Your task to perform on an android device: change alarm snooze length Image 0: 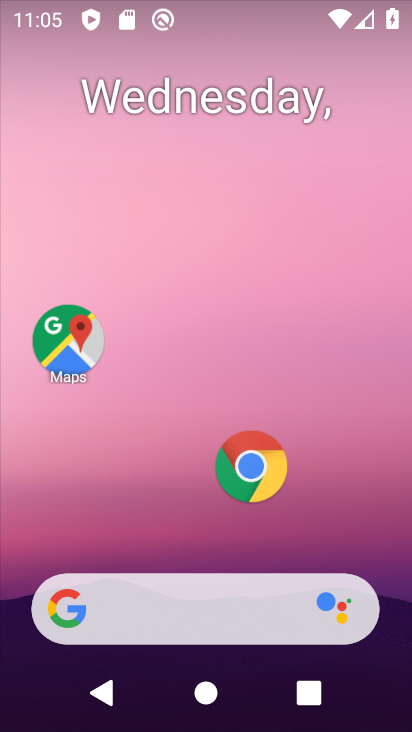
Step 0: drag from (204, 444) to (170, 60)
Your task to perform on an android device: change alarm snooze length Image 1: 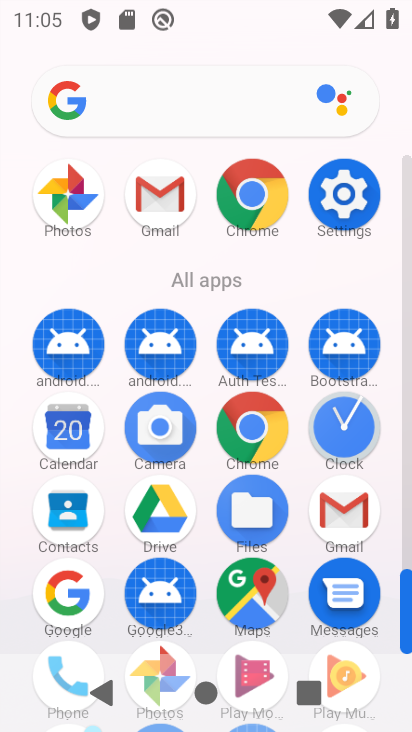
Step 1: click (339, 439)
Your task to perform on an android device: change alarm snooze length Image 2: 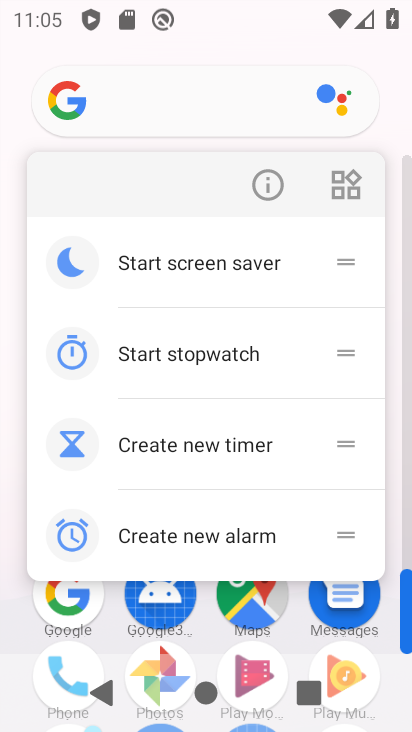
Step 2: click (339, 439)
Your task to perform on an android device: change alarm snooze length Image 3: 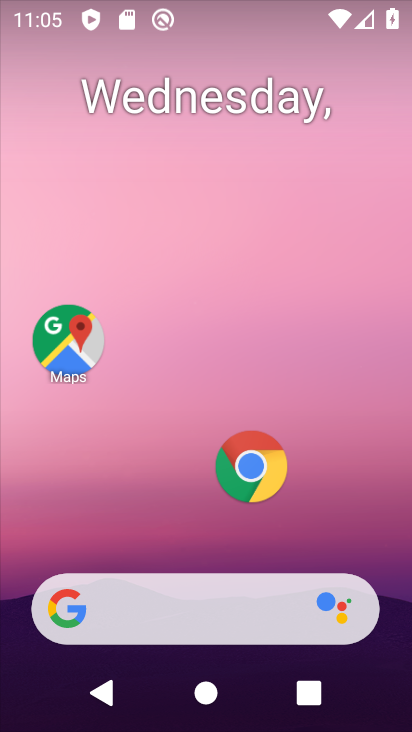
Step 3: drag from (371, 661) to (145, 67)
Your task to perform on an android device: change alarm snooze length Image 4: 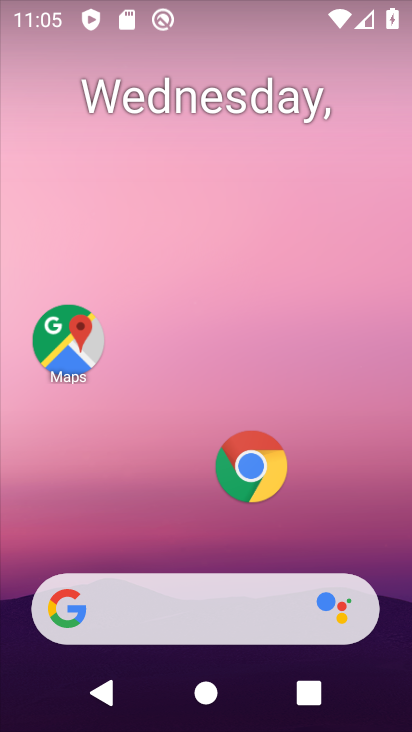
Step 4: drag from (264, 374) to (94, 23)
Your task to perform on an android device: change alarm snooze length Image 5: 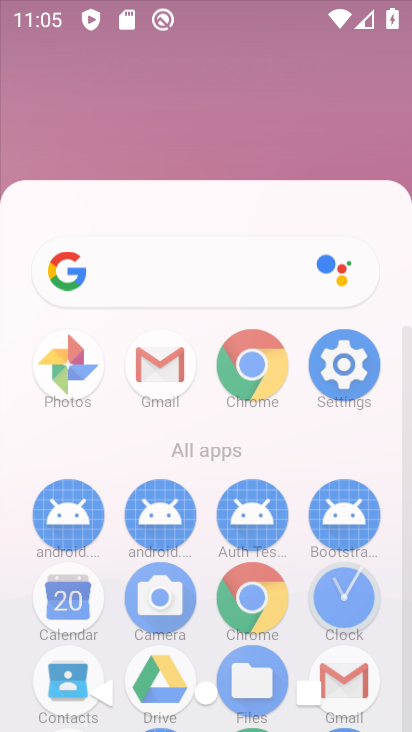
Step 5: drag from (250, 507) to (31, 43)
Your task to perform on an android device: change alarm snooze length Image 6: 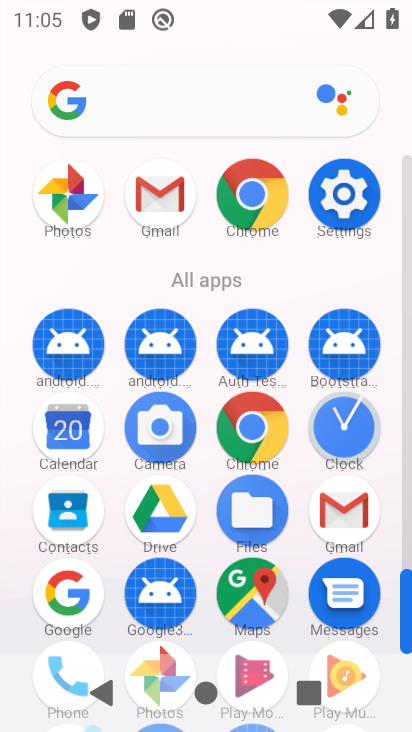
Step 6: click (334, 422)
Your task to perform on an android device: change alarm snooze length Image 7: 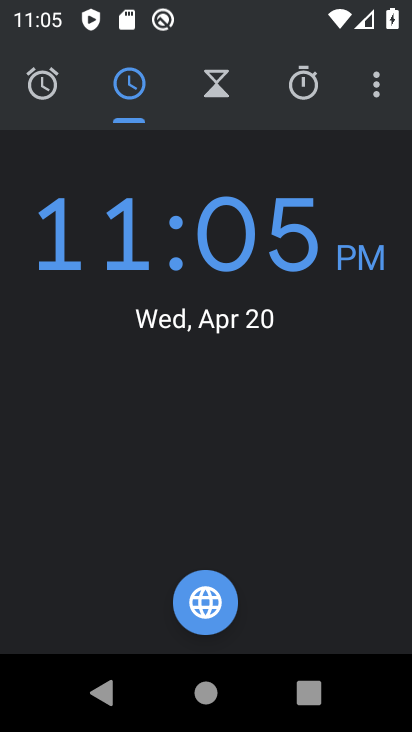
Step 7: click (368, 101)
Your task to perform on an android device: change alarm snooze length Image 8: 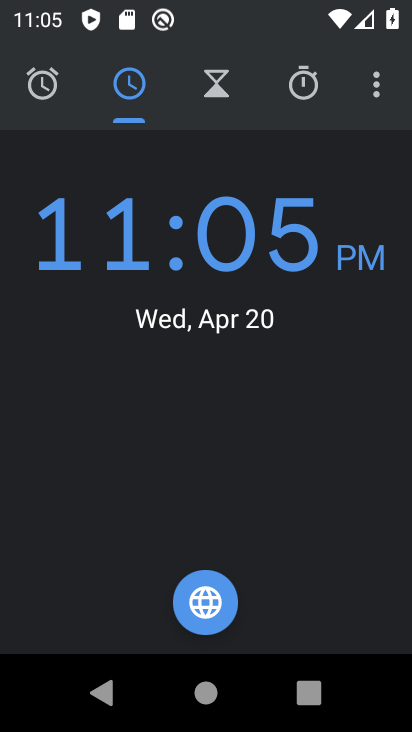
Step 8: click (376, 83)
Your task to perform on an android device: change alarm snooze length Image 9: 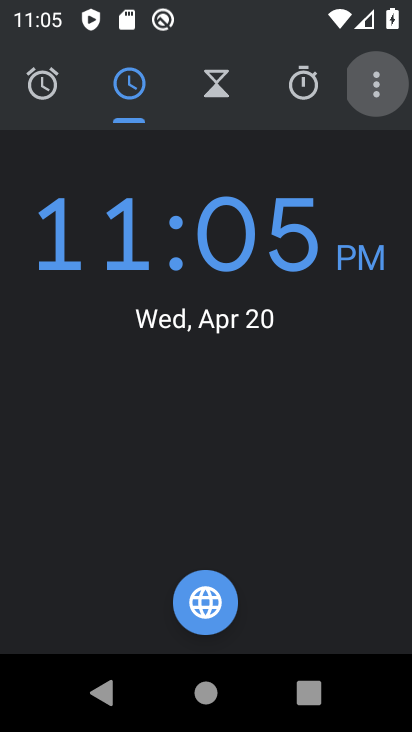
Step 9: click (376, 83)
Your task to perform on an android device: change alarm snooze length Image 10: 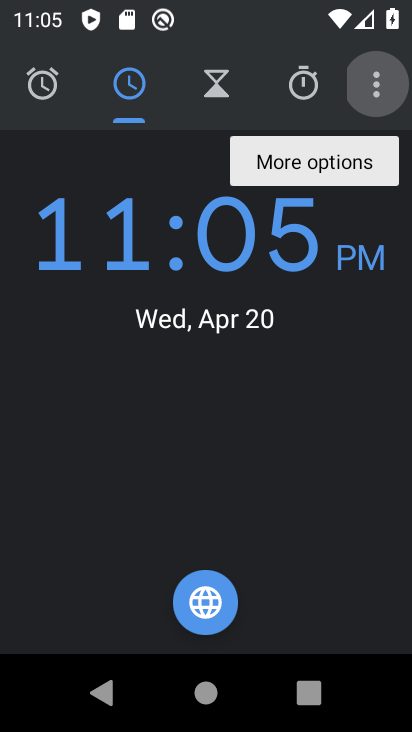
Step 10: click (375, 81)
Your task to perform on an android device: change alarm snooze length Image 11: 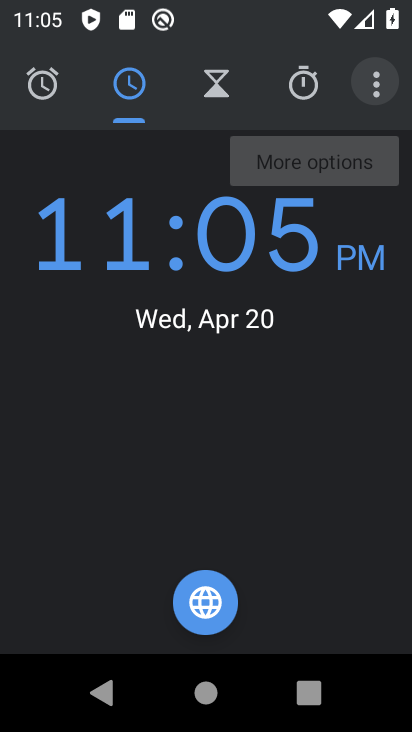
Step 11: click (375, 81)
Your task to perform on an android device: change alarm snooze length Image 12: 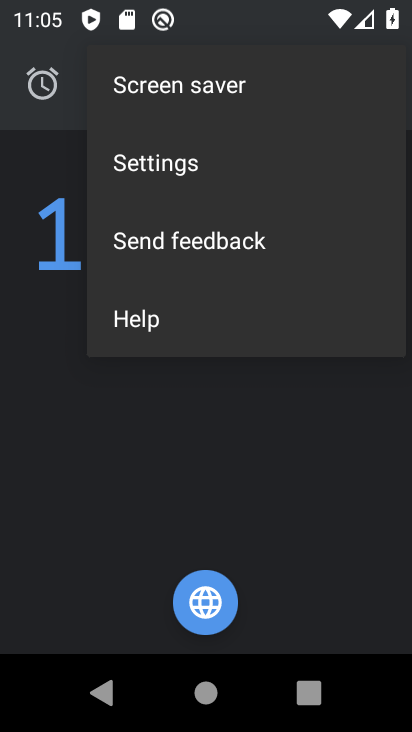
Step 12: click (365, 88)
Your task to perform on an android device: change alarm snooze length Image 13: 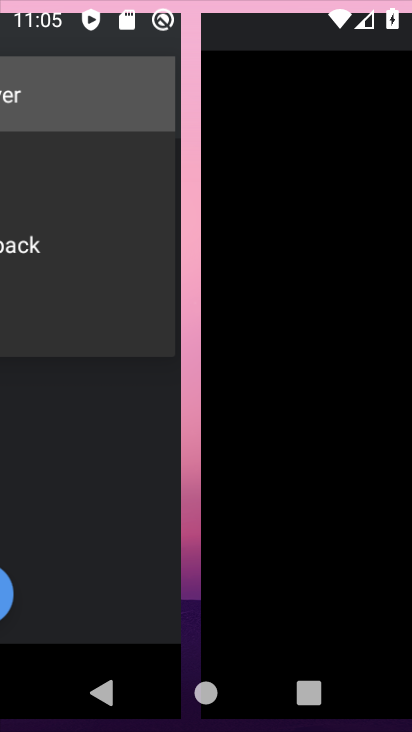
Step 13: click (171, 166)
Your task to perform on an android device: change alarm snooze length Image 14: 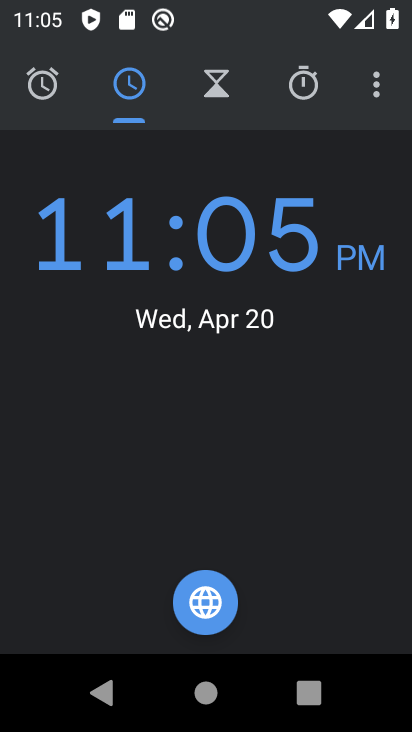
Step 14: click (378, 82)
Your task to perform on an android device: change alarm snooze length Image 15: 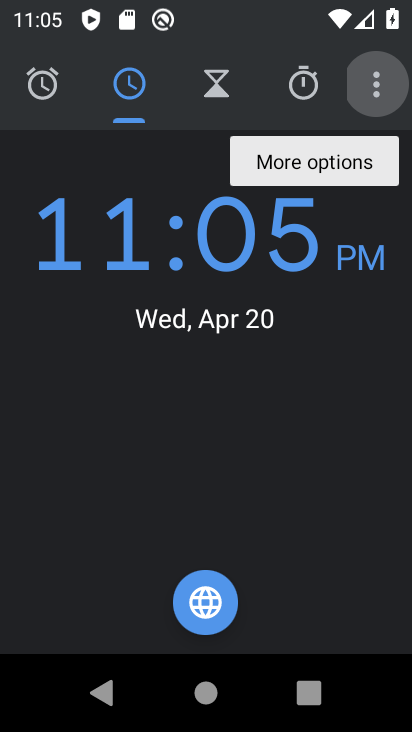
Step 15: click (371, 89)
Your task to perform on an android device: change alarm snooze length Image 16: 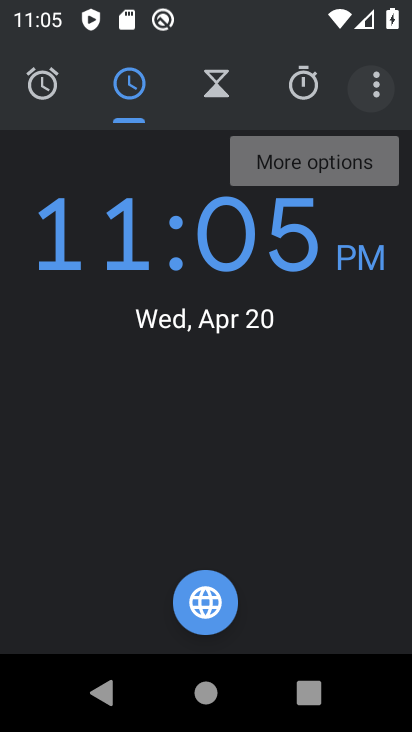
Step 16: click (371, 90)
Your task to perform on an android device: change alarm snooze length Image 17: 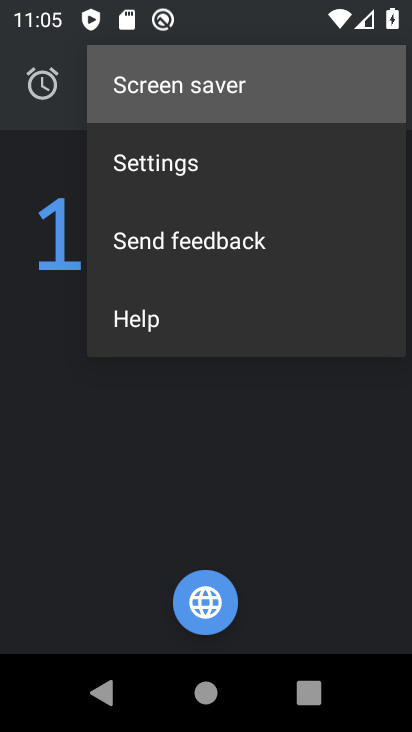
Step 17: click (168, 160)
Your task to perform on an android device: change alarm snooze length Image 18: 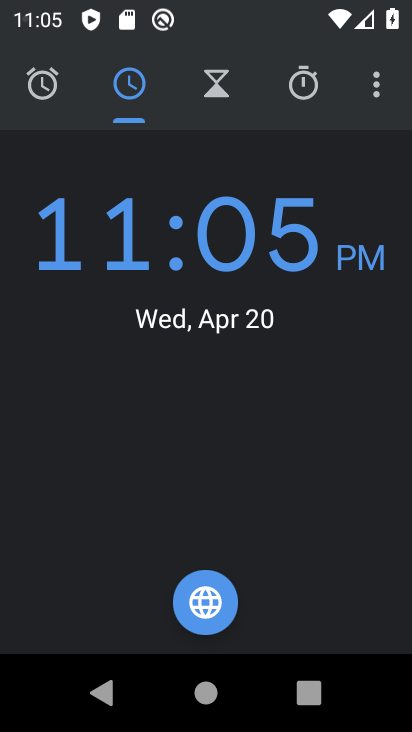
Step 18: click (376, 86)
Your task to perform on an android device: change alarm snooze length Image 19: 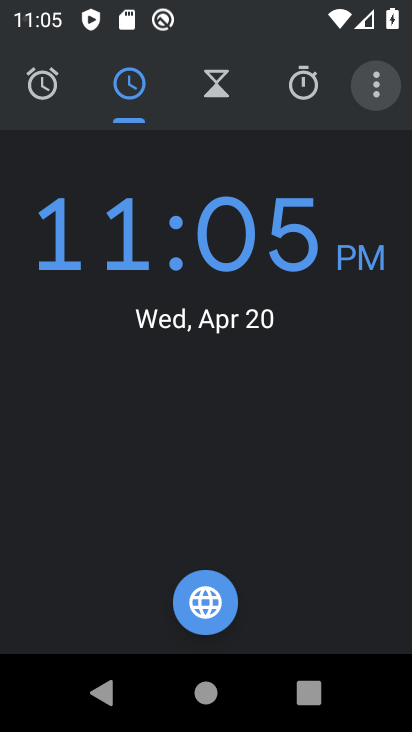
Step 19: drag from (376, 86) to (170, 164)
Your task to perform on an android device: change alarm snooze length Image 20: 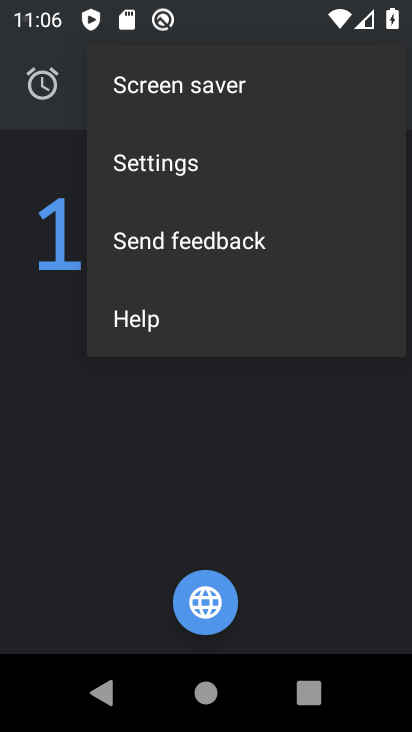
Step 20: click (172, 164)
Your task to perform on an android device: change alarm snooze length Image 21: 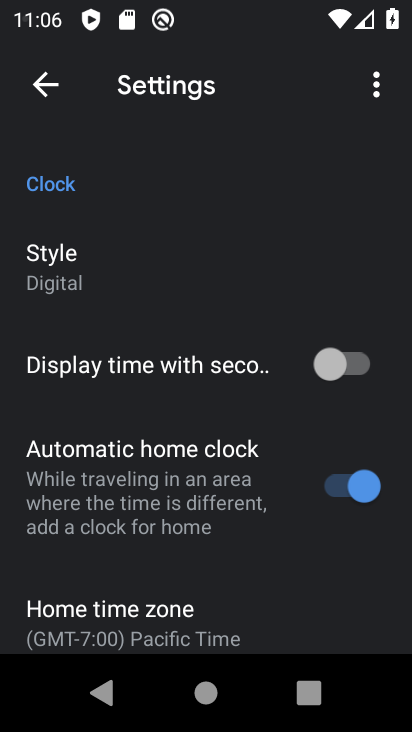
Step 21: drag from (129, 457) to (93, 186)
Your task to perform on an android device: change alarm snooze length Image 22: 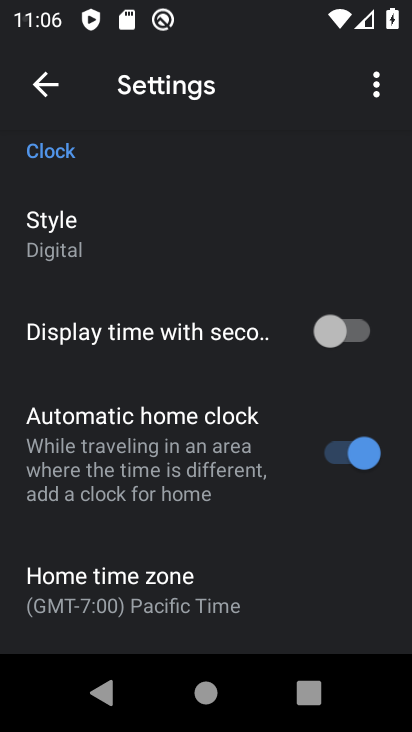
Step 22: drag from (117, 457) to (101, 268)
Your task to perform on an android device: change alarm snooze length Image 23: 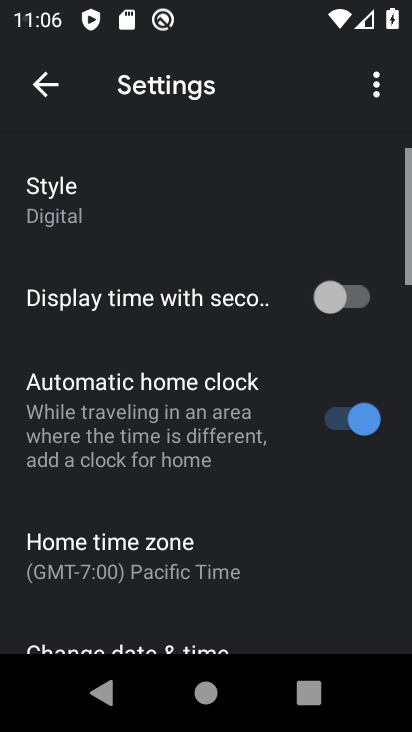
Step 23: click (203, 230)
Your task to perform on an android device: change alarm snooze length Image 24: 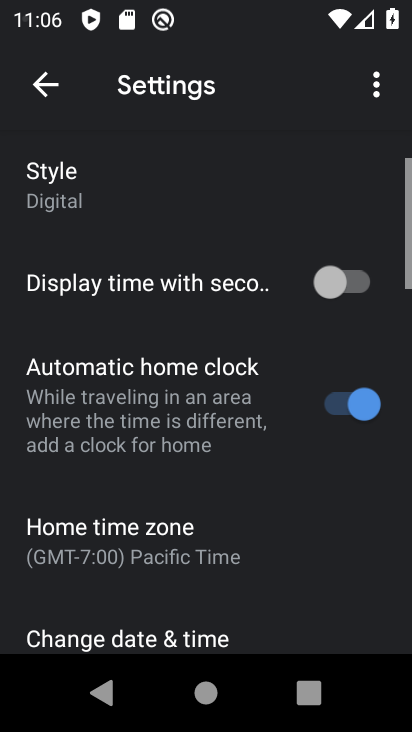
Step 24: drag from (153, 524) to (120, 179)
Your task to perform on an android device: change alarm snooze length Image 25: 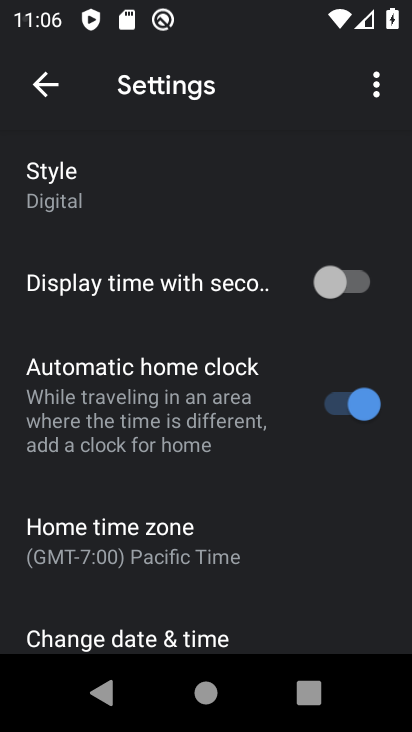
Step 25: drag from (195, 523) to (175, 92)
Your task to perform on an android device: change alarm snooze length Image 26: 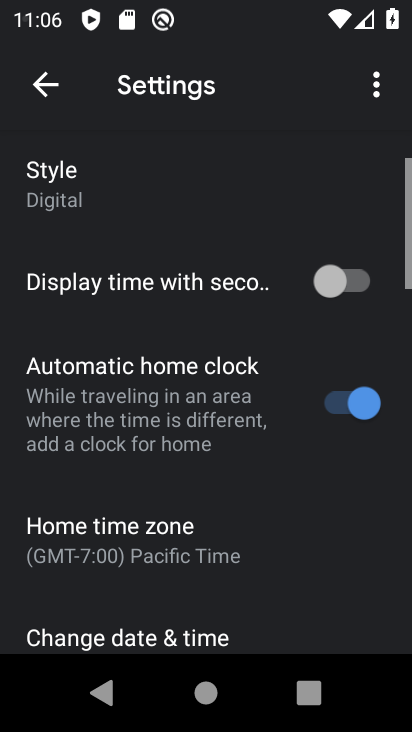
Step 26: drag from (210, 541) to (195, 199)
Your task to perform on an android device: change alarm snooze length Image 27: 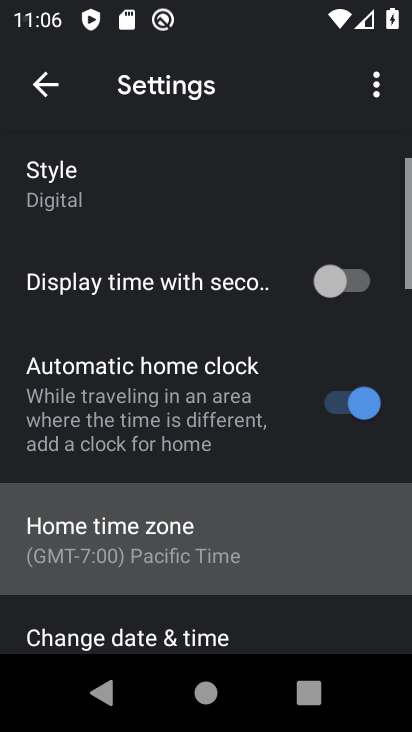
Step 27: drag from (209, 472) to (169, 201)
Your task to perform on an android device: change alarm snooze length Image 28: 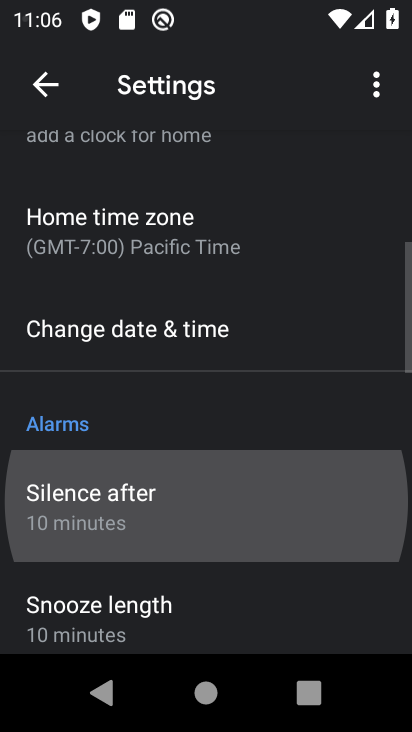
Step 28: drag from (180, 418) to (200, 218)
Your task to perform on an android device: change alarm snooze length Image 29: 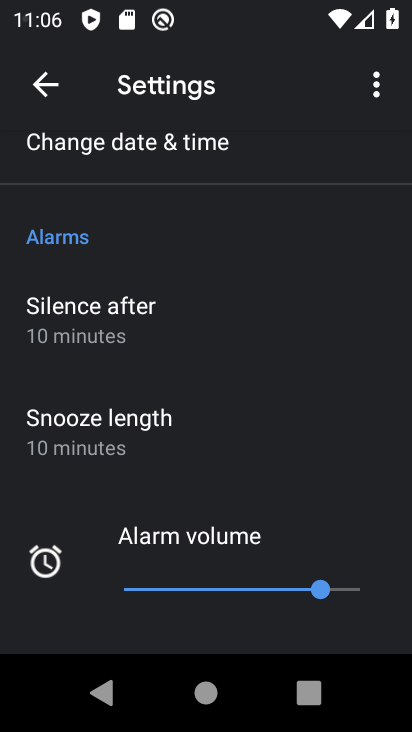
Step 29: click (195, 309)
Your task to perform on an android device: change alarm snooze length Image 30: 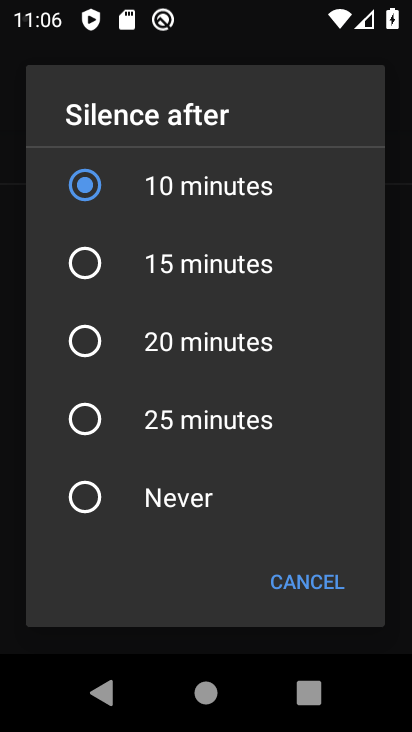
Step 30: click (310, 587)
Your task to perform on an android device: change alarm snooze length Image 31: 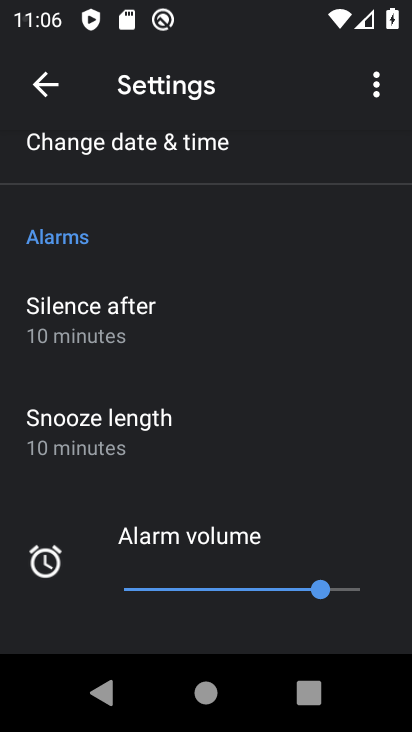
Step 31: click (72, 427)
Your task to perform on an android device: change alarm snooze length Image 32: 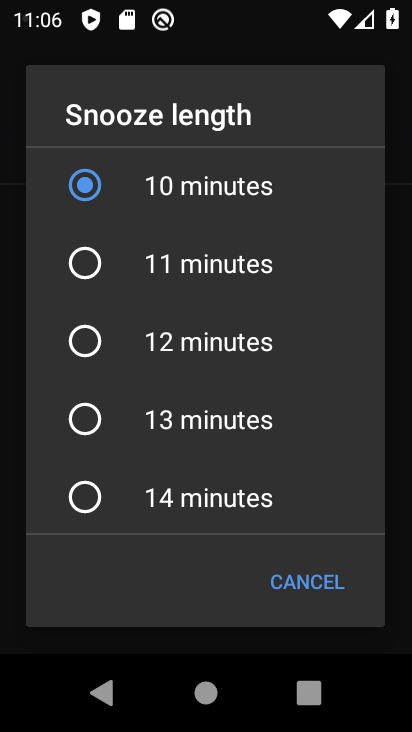
Step 32: click (322, 583)
Your task to perform on an android device: change alarm snooze length Image 33: 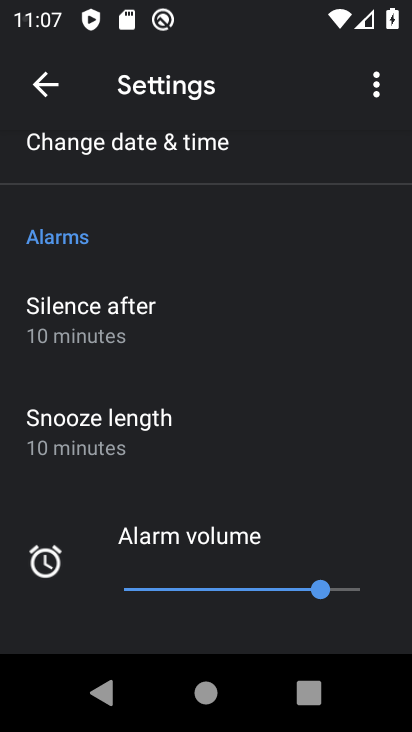
Step 33: click (86, 432)
Your task to perform on an android device: change alarm snooze length Image 34: 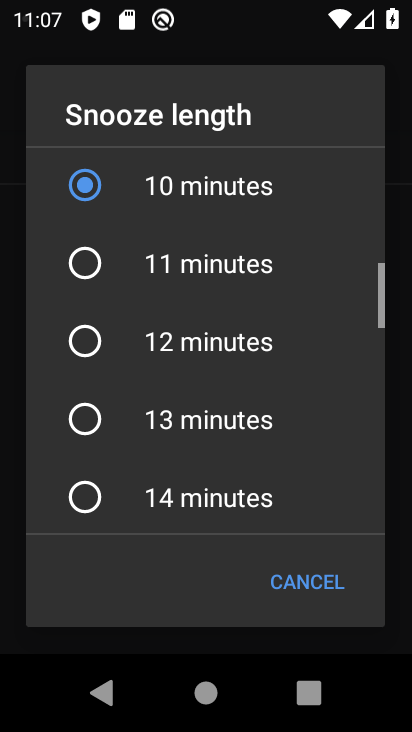
Step 34: click (92, 413)
Your task to perform on an android device: change alarm snooze length Image 35: 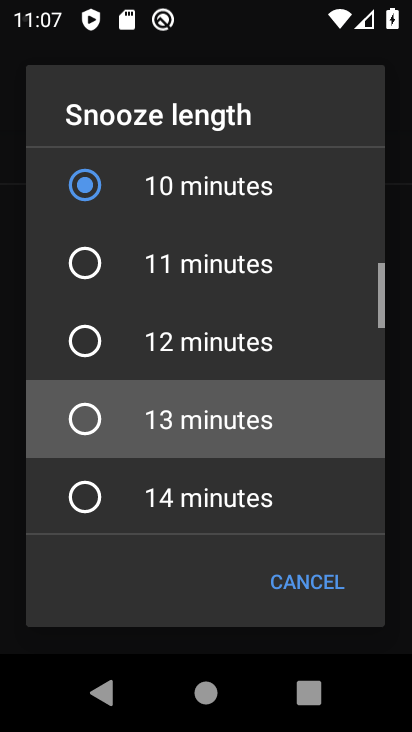
Step 35: click (92, 413)
Your task to perform on an android device: change alarm snooze length Image 36: 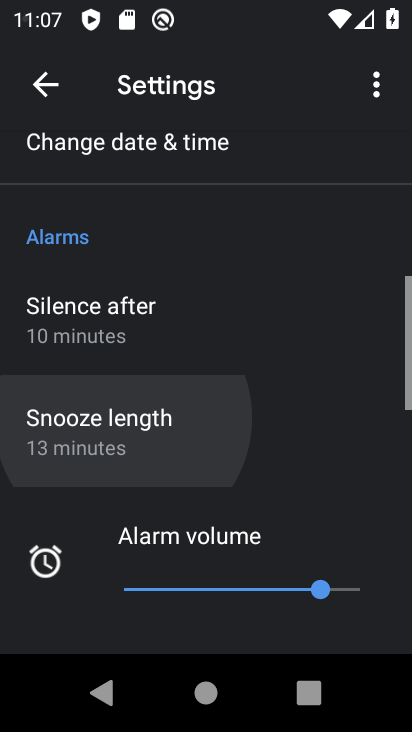
Step 36: click (92, 417)
Your task to perform on an android device: change alarm snooze length Image 37: 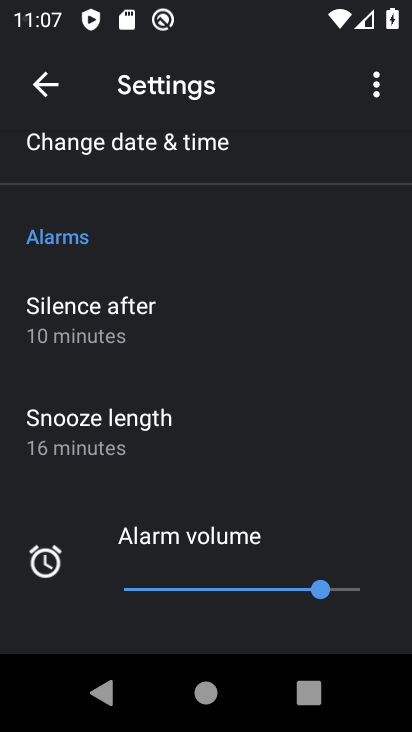
Step 37: task complete